Your task to perform on an android device: empty trash in the gmail app Image 0: 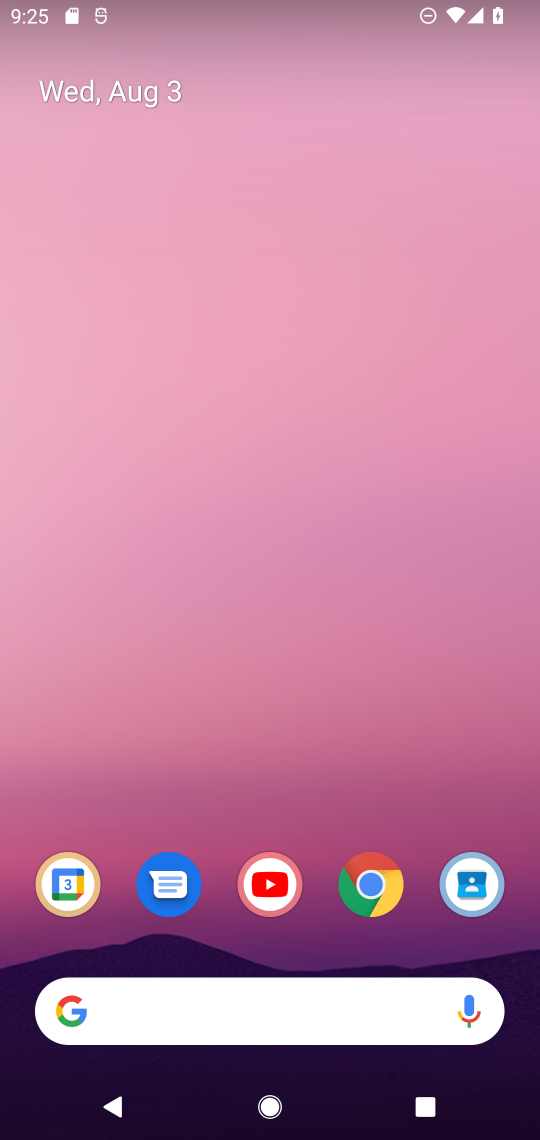
Step 0: drag from (71, 1078) to (415, 135)
Your task to perform on an android device: empty trash in the gmail app Image 1: 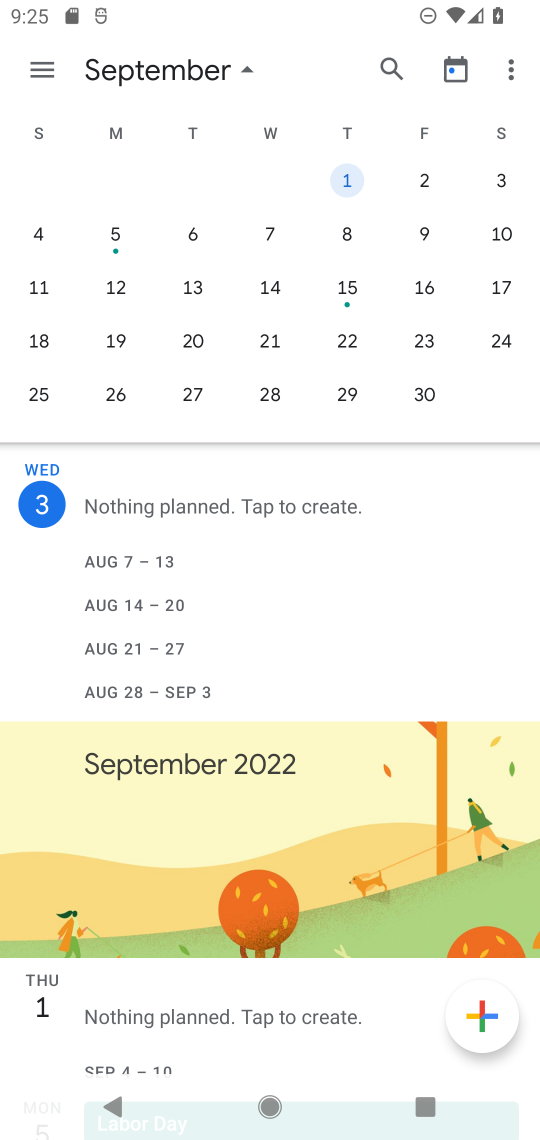
Step 1: task complete